Your task to perform on an android device: turn off wifi Image 0: 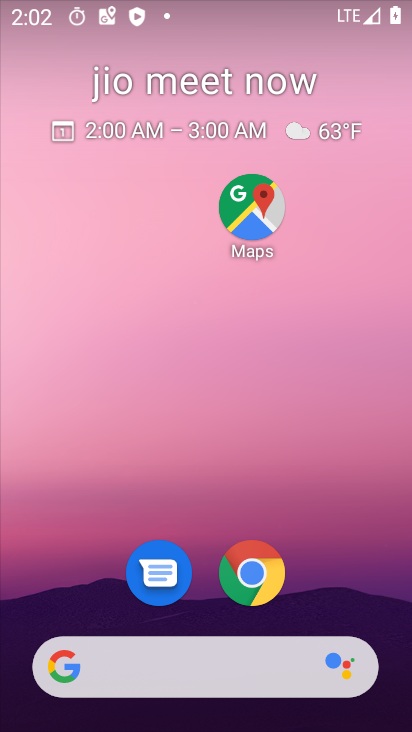
Step 0: drag from (276, 1) to (187, 414)
Your task to perform on an android device: turn off wifi Image 1: 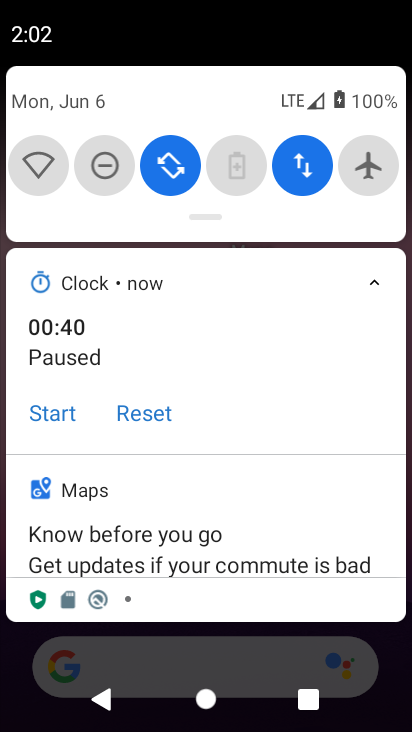
Step 1: task complete